Your task to perform on an android device: turn off airplane mode Image 0: 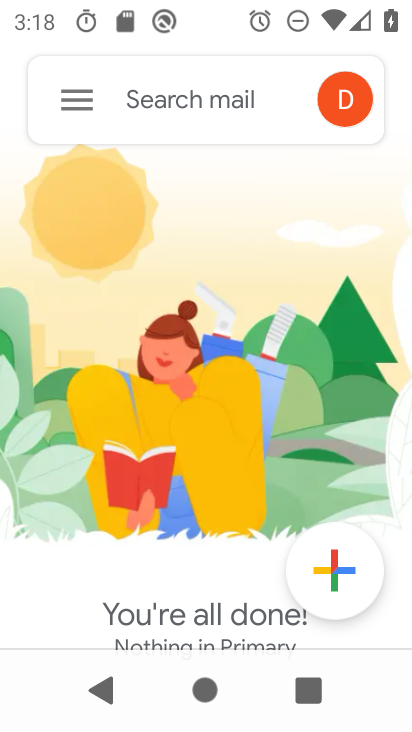
Step 0: press home button
Your task to perform on an android device: turn off airplane mode Image 1: 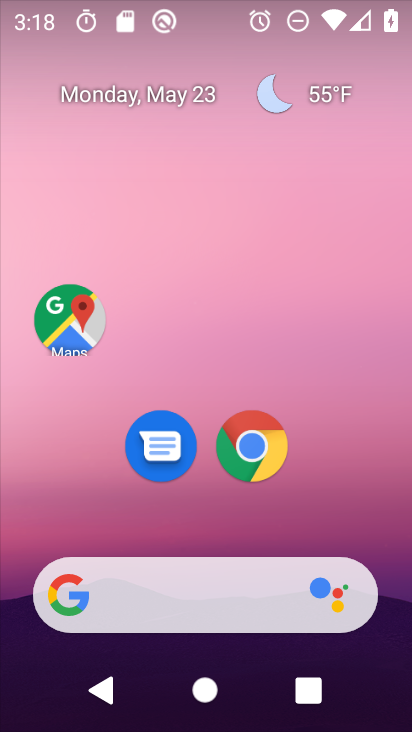
Step 1: drag from (183, 531) to (131, 207)
Your task to perform on an android device: turn off airplane mode Image 2: 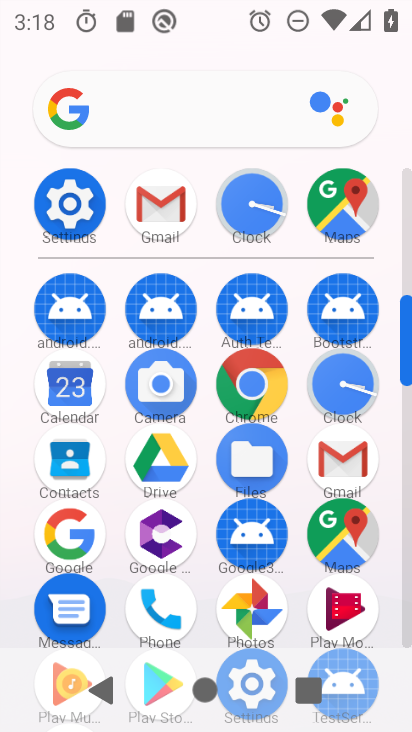
Step 2: click (62, 188)
Your task to perform on an android device: turn off airplane mode Image 3: 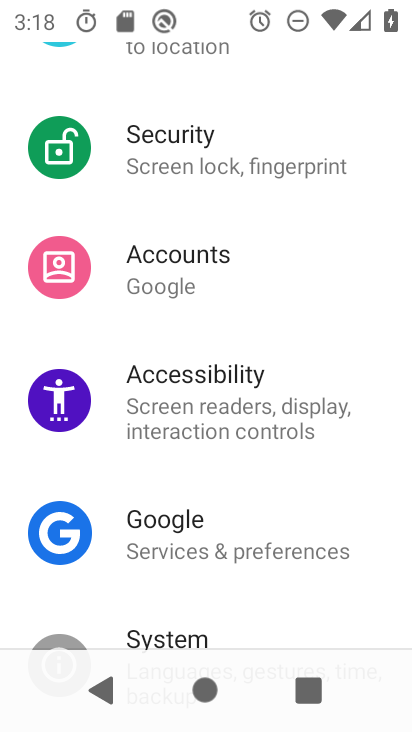
Step 3: drag from (206, 234) to (236, 529)
Your task to perform on an android device: turn off airplane mode Image 4: 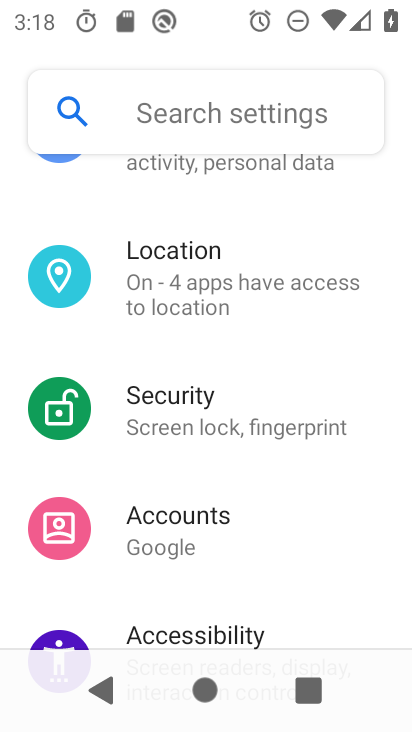
Step 4: drag from (214, 190) to (235, 374)
Your task to perform on an android device: turn off airplane mode Image 5: 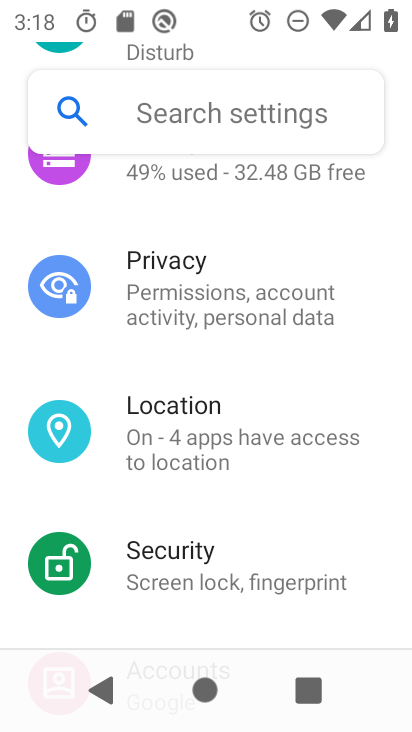
Step 5: drag from (231, 229) to (238, 385)
Your task to perform on an android device: turn off airplane mode Image 6: 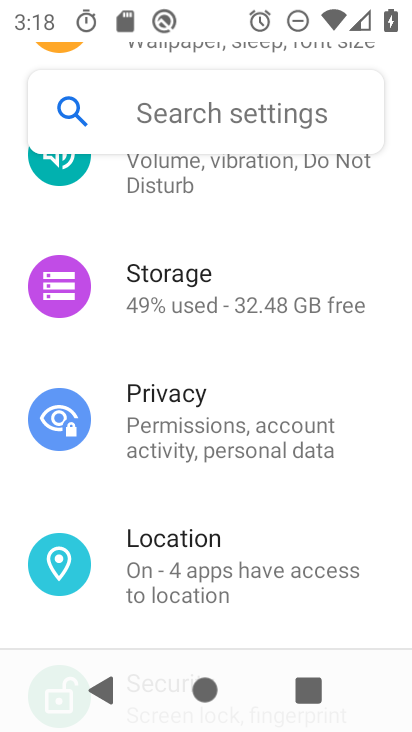
Step 6: drag from (224, 226) to (261, 457)
Your task to perform on an android device: turn off airplane mode Image 7: 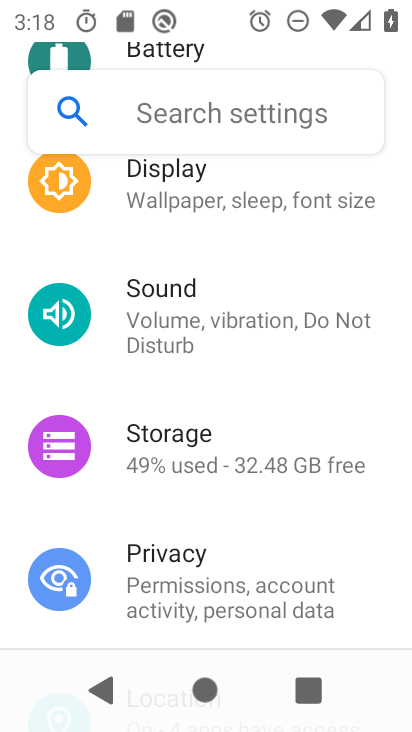
Step 7: drag from (240, 194) to (292, 490)
Your task to perform on an android device: turn off airplane mode Image 8: 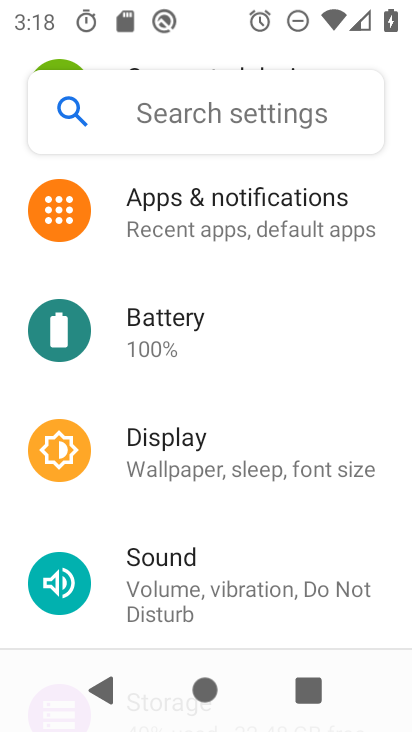
Step 8: drag from (201, 183) to (235, 408)
Your task to perform on an android device: turn off airplane mode Image 9: 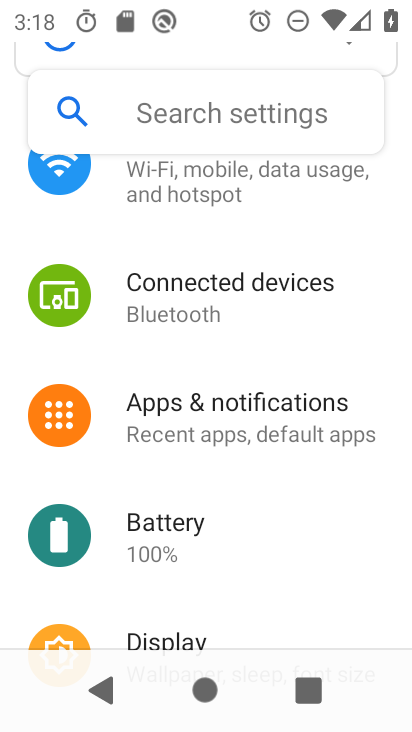
Step 9: click (190, 191)
Your task to perform on an android device: turn off airplane mode Image 10: 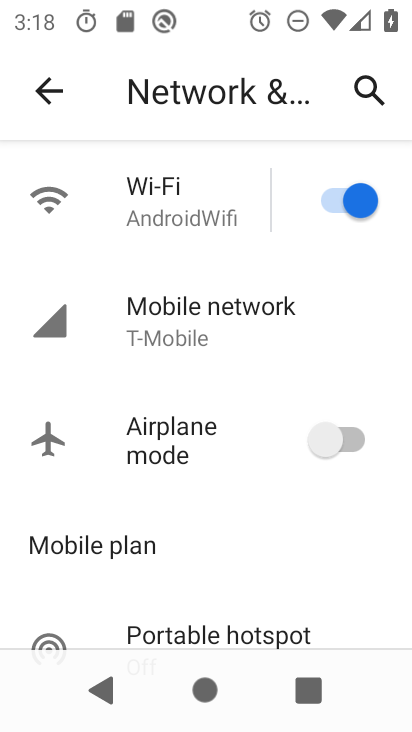
Step 10: task complete